Your task to perform on an android device: turn on showing notifications on the lock screen Image 0: 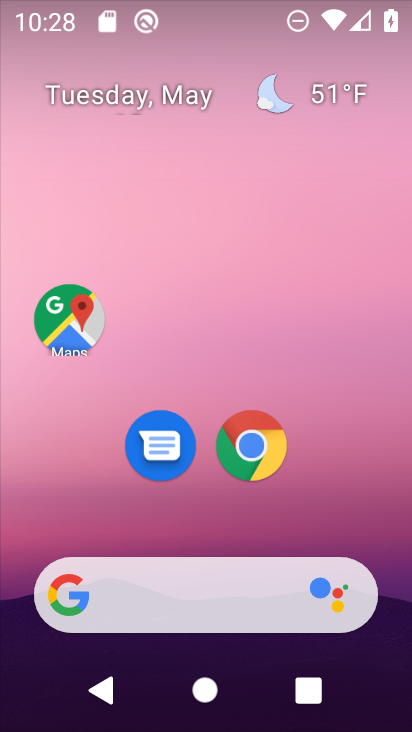
Step 0: drag from (231, 557) to (197, 31)
Your task to perform on an android device: turn on showing notifications on the lock screen Image 1: 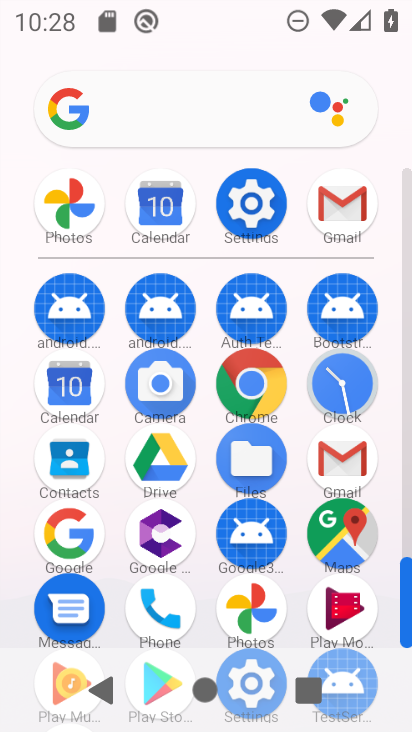
Step 1: click (251, 227)
Your task to perform on an android device: turn on showing notifications on the lock screen Image 2: 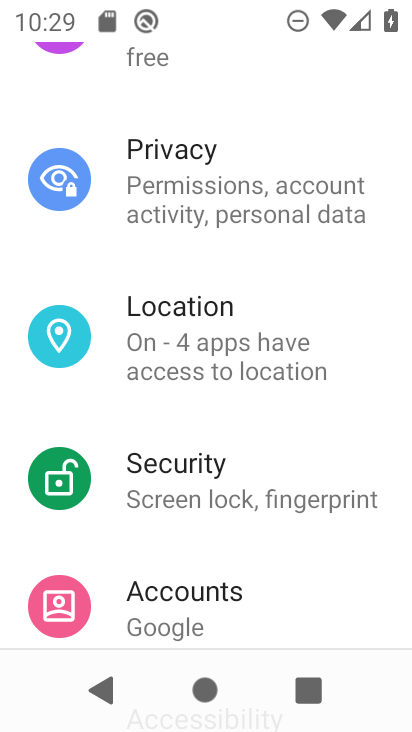
Step 2: drag from (202, 218) to (243, 568)
Your task to perform on an android device: turn on showing notifications on the lock screen Image 3: 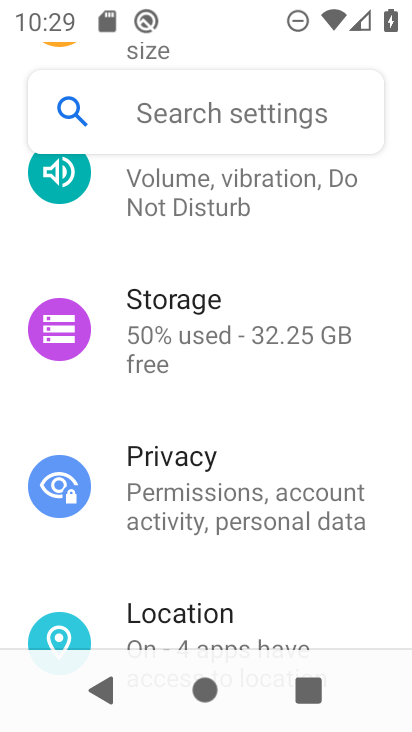
Step 3: drag from (230, 183) to (240, 634)
Your task to perform on an android device: turn on showing notifications on the lock screen Image 4: 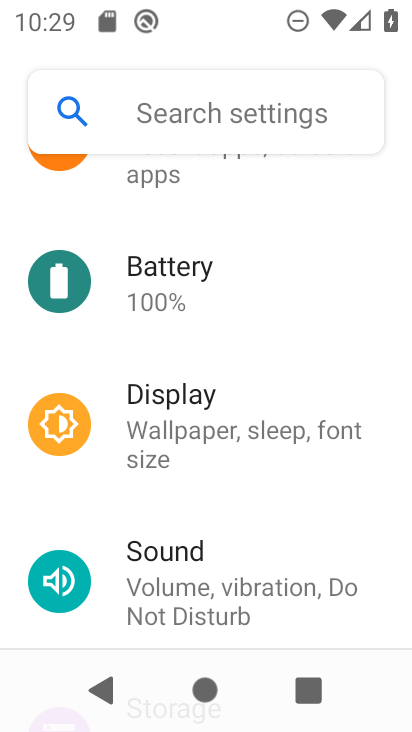
Step 4: drag from (204, 328) to (104, 662)
Your task to perform on an android device: turn on showing notifications on the lock screen Image 5: 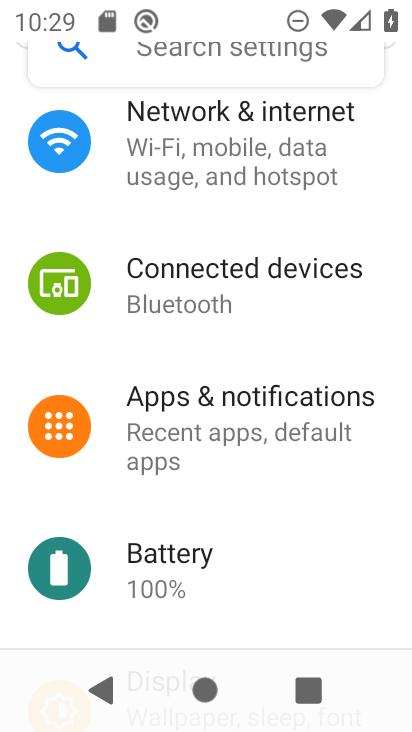
Step 5: click (206, 402)
Your task to perform on an android device: turn on showing notifications on the lock screen Image 6: 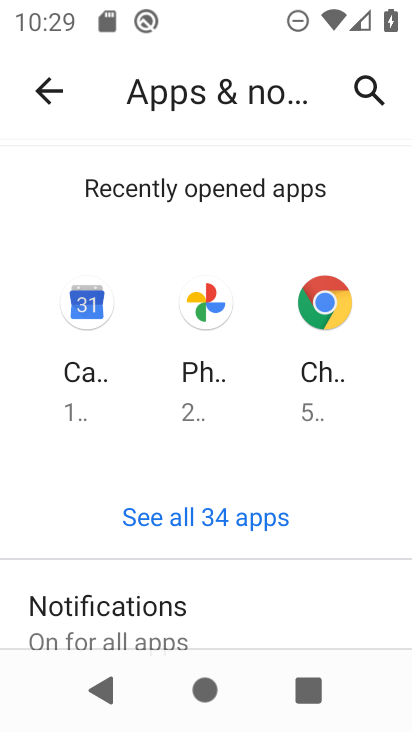
Step 6: drag from (203, 389) to (187, 77)
Your task to perform on an android device: turn on showing notifications on the lock screen Image 7: 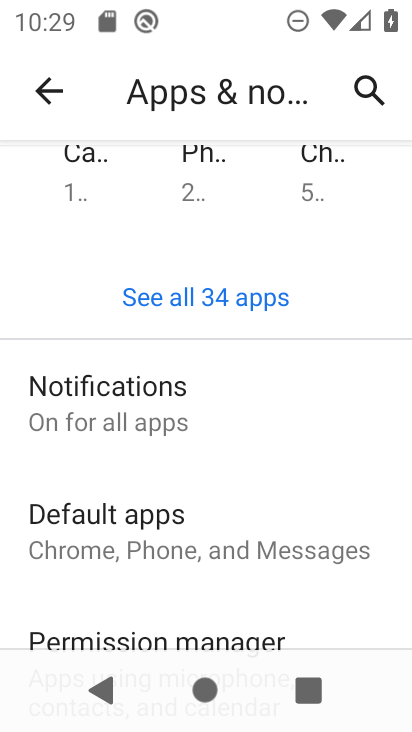
Step 7: drag from (195, 437) to (155, 8)
Your task to perform on an android device: turn on showing notifications on the lock screen Image 8: 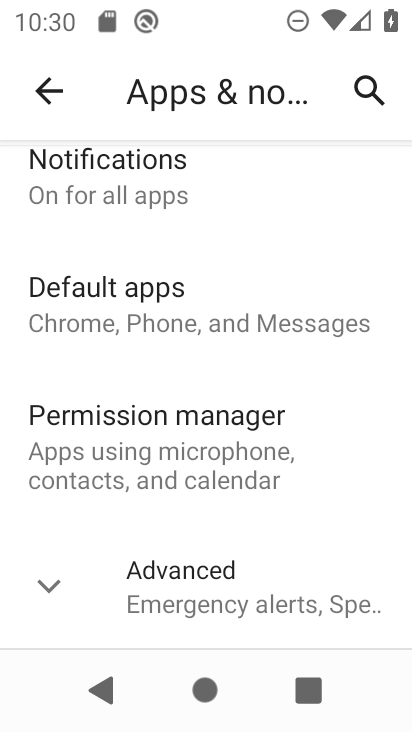
Step 8: click (200, 594)
Your task to perform on an android device: turn on showing notifications on the lock screen Image 9: 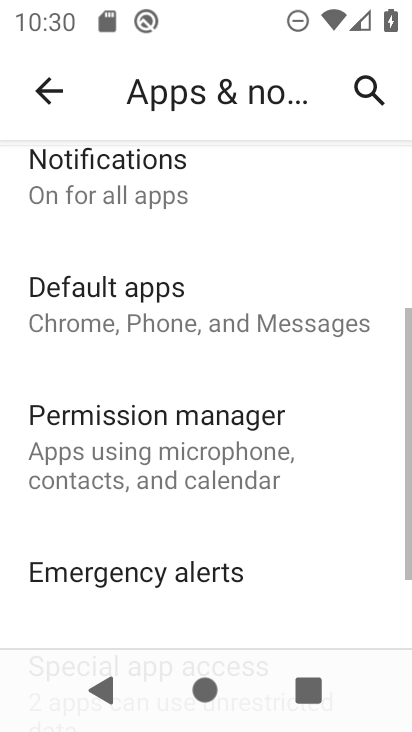
Step 9: drag from (234, 557) to (220, 118)
Your task to perform on an android device: turn on showing notifications on the lock screen Image 10: 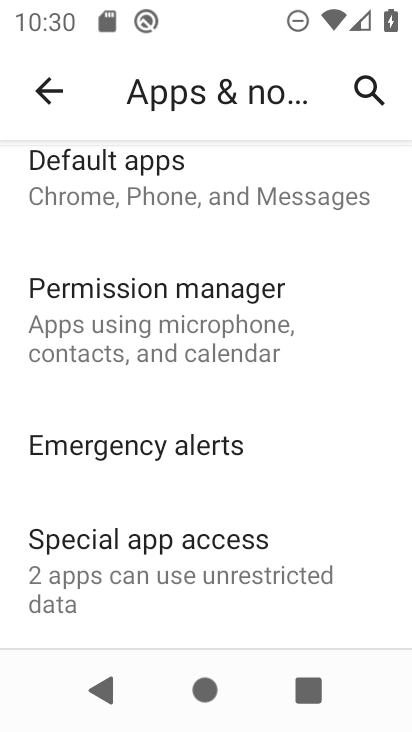
Step 10: drag from (193, 268) to (203, 603)
Your task to perform on an android device: turn on showing notifications on the lock screen Image 11: 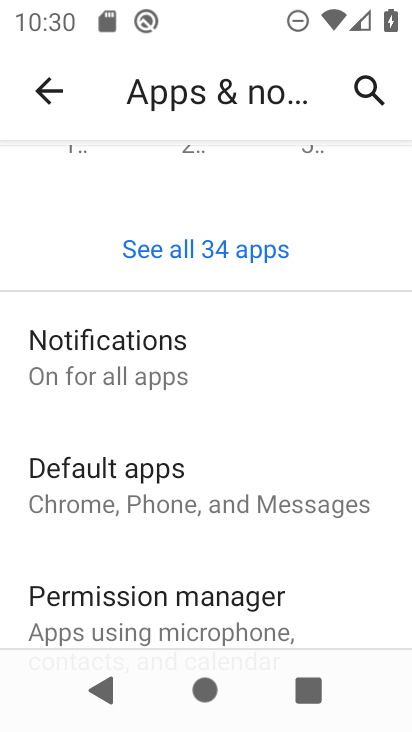
Step 11: click (113, 340)
Your task to perform on an android device: turn on showing notifications on the lock screen Image 12: 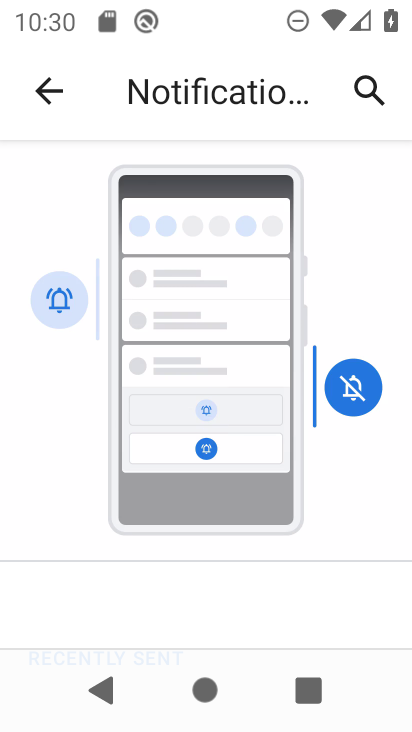
Step 12: drag from (173, 562) to (32, 11)
Your task to perform on an android device: turn on showing notifications on the lock screen Image 13: 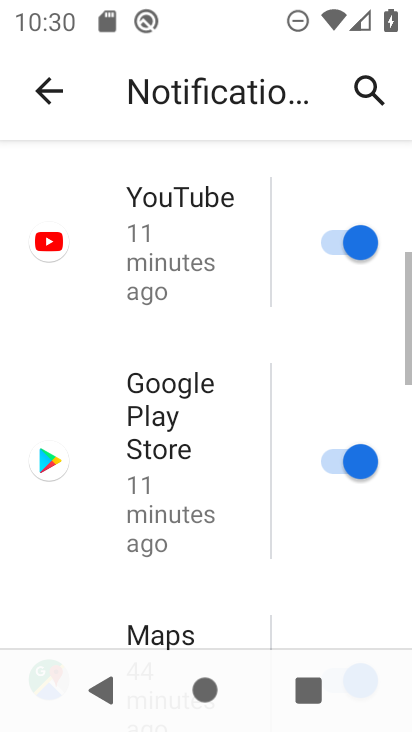
Step 13: drag from (131, 439) to (11, 332)
Your task to perform on an android device: turn on showing notifications on the lock screen Image 14: 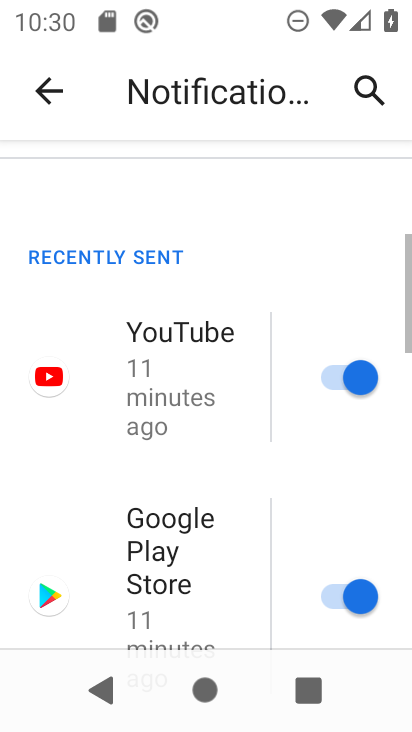
Step 14: drag from (107, 473) to (112, 69)
Your task to perform on an android device: turn on showing notifications on the lock screen Image 15: 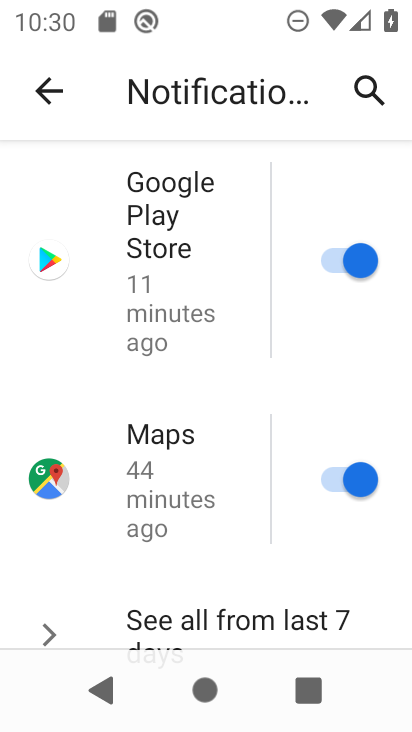
Step 15: drag from (179, 590) to (155, 126)
Your task to perform on an android device: turn on showing notifications on the lock screen Image 16: 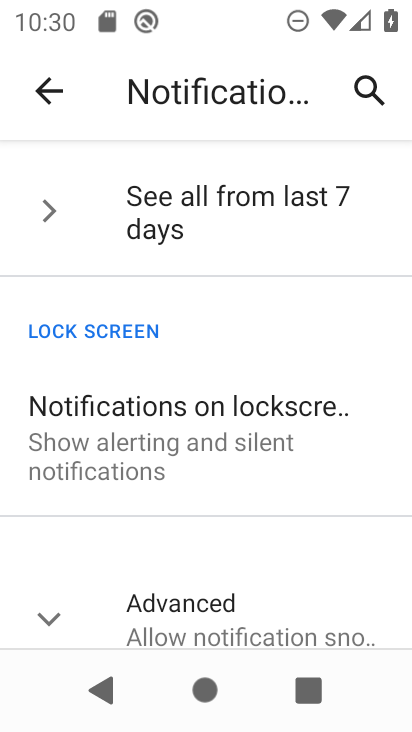
Step 16: click (161, 444)
Your task to perform on an android device: turn on showing notifications on the lock screen Image 17: 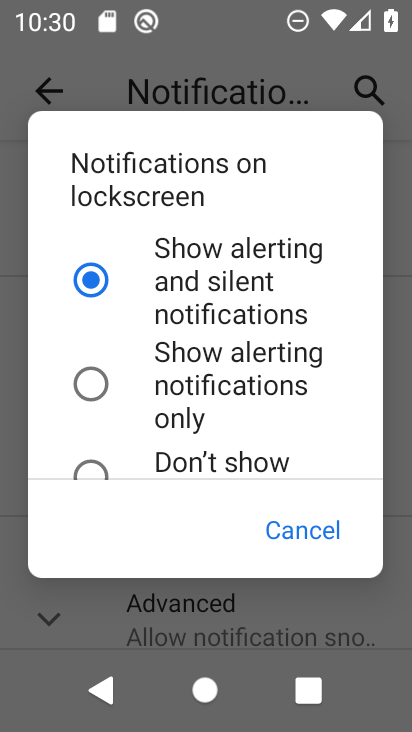
Step 17: click (179, 258)
Your task to perform on an android device: turn on showing notifications on the lock screen Image 18: 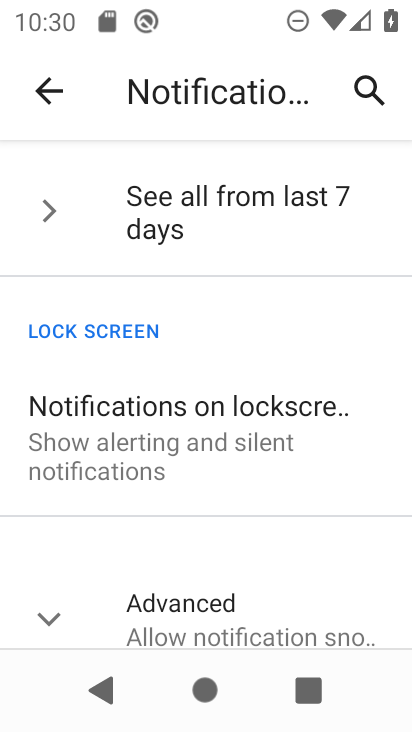
Step 18: task complete